Your task to perform on an android device: see creations saved in the google photos Image 0: 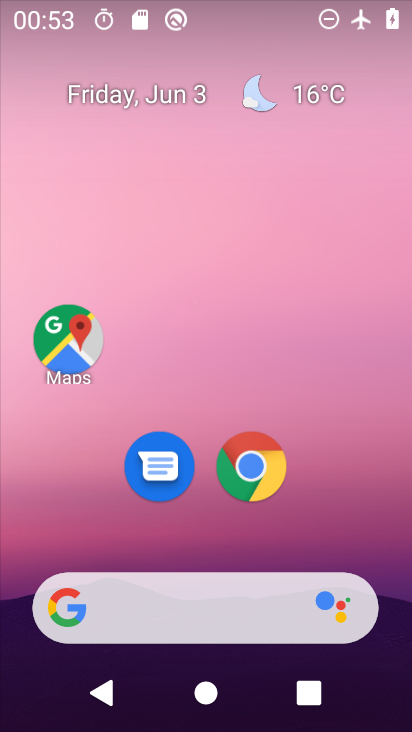
Step 0: drag from (204, 554) to (217, 203)
Your task to perform on an android device: see creations saved in the google photos Image 1: 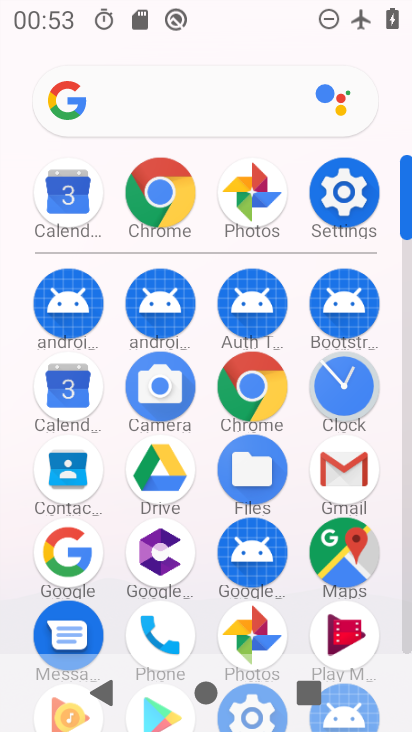
Step 1: click (244, 195)
Your task to perform on an android device: see creations saved in the google photos Image 2: 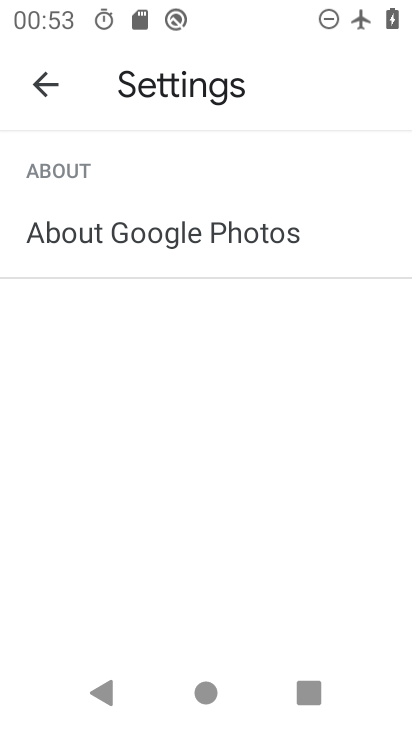
Step 2: click (36, 77)
Your task to perform on an android device: see creations saved in the google photos Image 3: 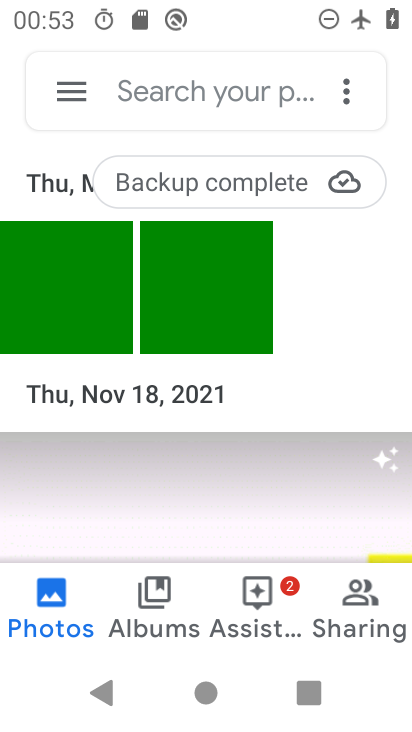
Step 3: click (210, 91)
Your task to perform on an android device: see creations saved in the google photos Image 4: 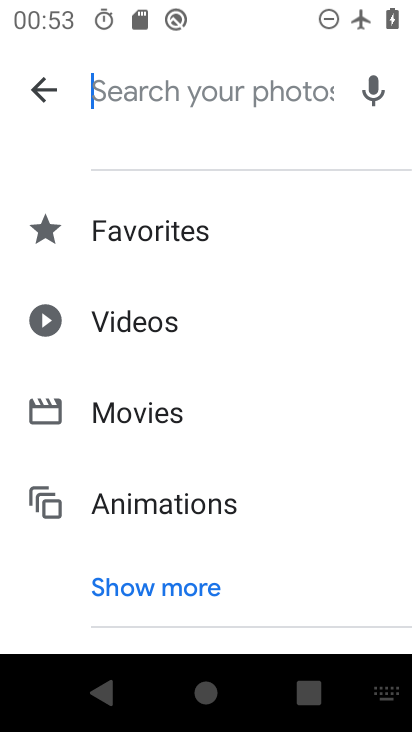
Step 4: click (159, 580)
Your task to perform on an android device: see creations saved in the google photos Image 5: 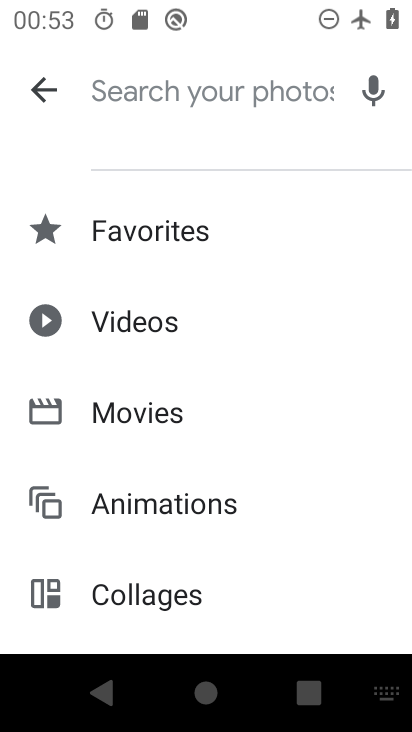
Step 5: drag from (163, 509) to (194, 259)
Your task to perform on an android device: see creations saved in the google photos Image 6: 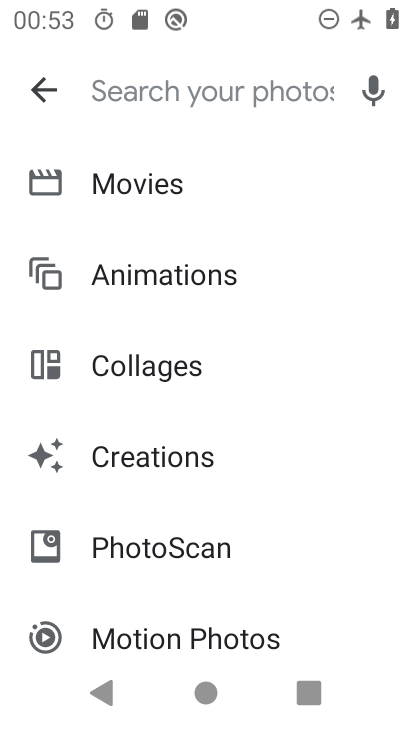
Step 6: click (154, 448)
Your task to perform on an android device: see creations saved in the google photos Image 7: 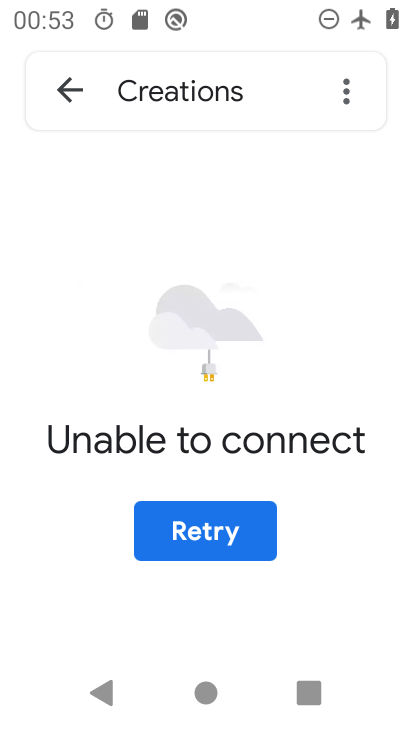
Step 7: task complete